Your task to perform on an android device: Go to Yahoo.com Image 0: 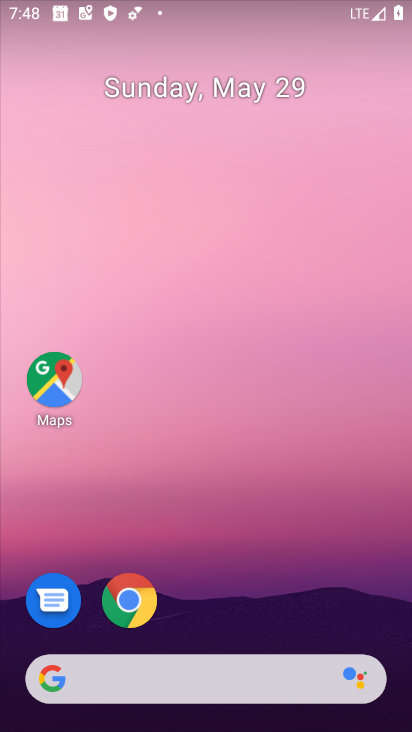
Step 0: click (128, 597)
Your task to perform on an android device: Go to Yahoo.com Image 1: 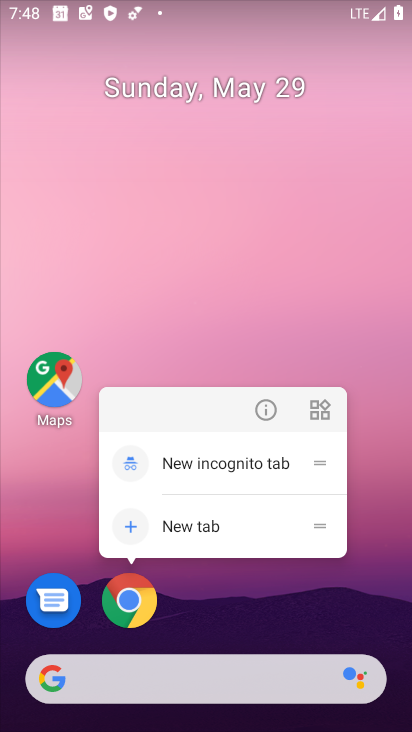
Step 1: click (134, 597)
Your task to perform on an android device: Go to Yahoo.com Image 2: 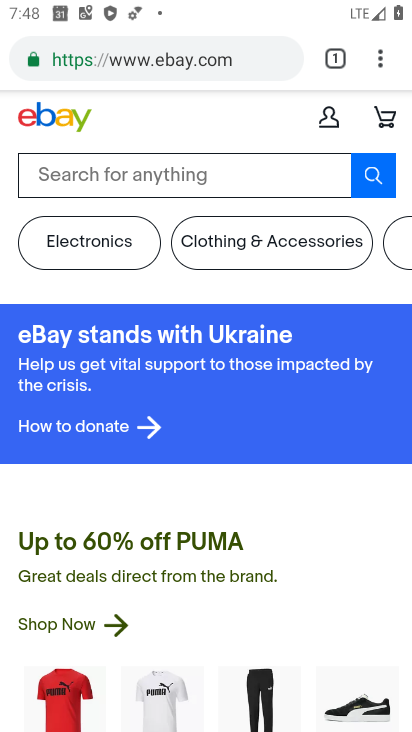
Step 2: click (175, 63)
Your task to perform on an android device: Go to Yahoo.com Image 3: 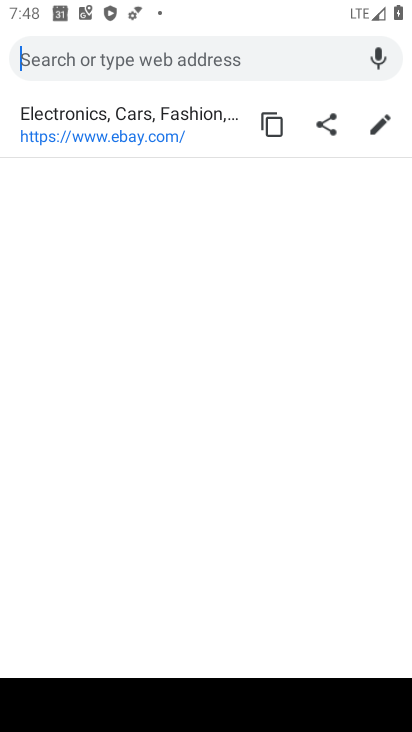
Step 3: type "yahoo.com"
Your task to perform on an android device: Go to Yahoo.com Image 4: 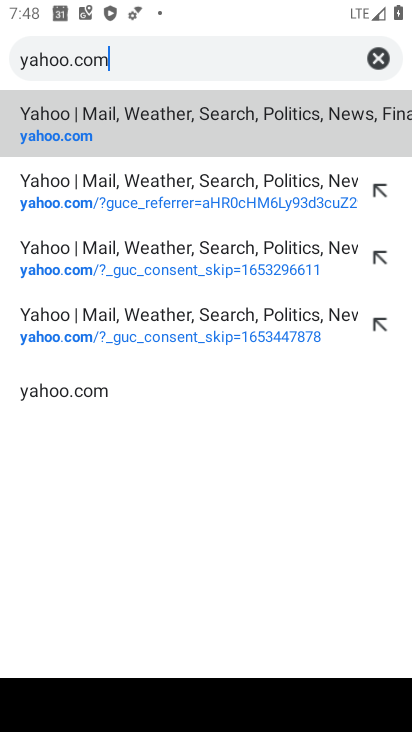
Step 4: click (170, 125)
Your task to perform on an android device: Go to Yahoo.com Image 5: 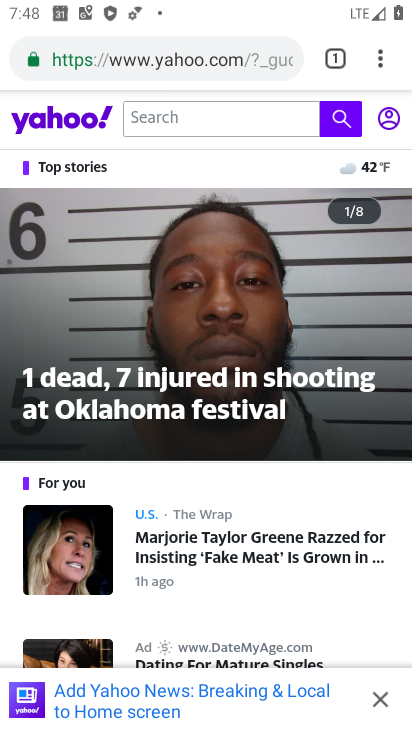
Step 5: task complete